Your task to perform on an android device: turn off sleep mode Image 0: 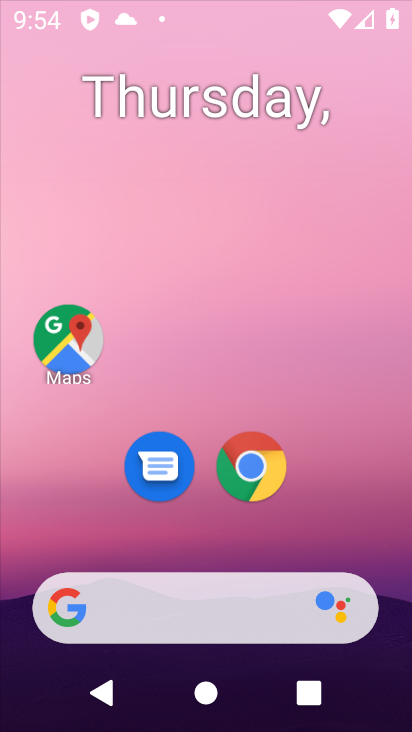
Step 0: drag from (238, 493) to (271, 115)
Your task to perform on an android device: turn off sleep mode Image 1: 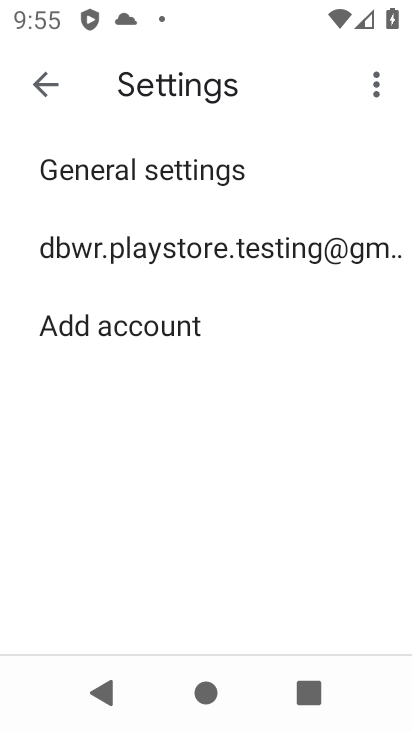
Step 1: press home button
Your task to perform on an android device: turn off sleep mode Image 2: 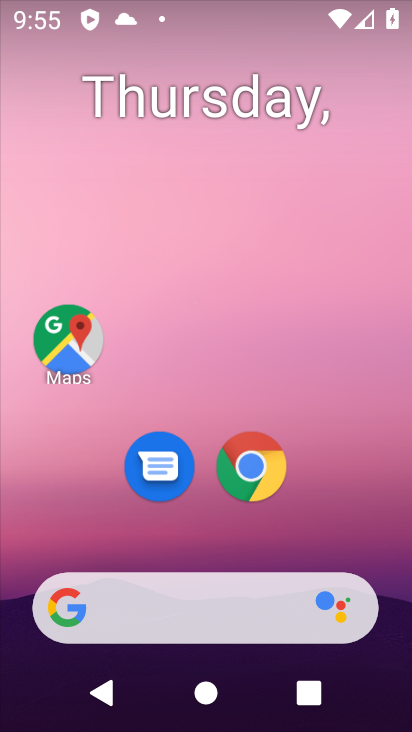
Step 2: drag from (201, 559) to (244, 126)
Your task to perform on an android device: turn off sleep mode Image 3: 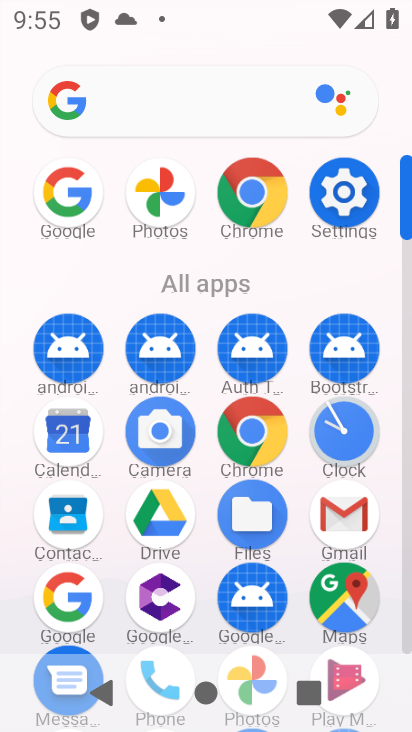
Step 3: click (333, 219)
Your task to perform on an android device: turn off sleep mode Image 4: 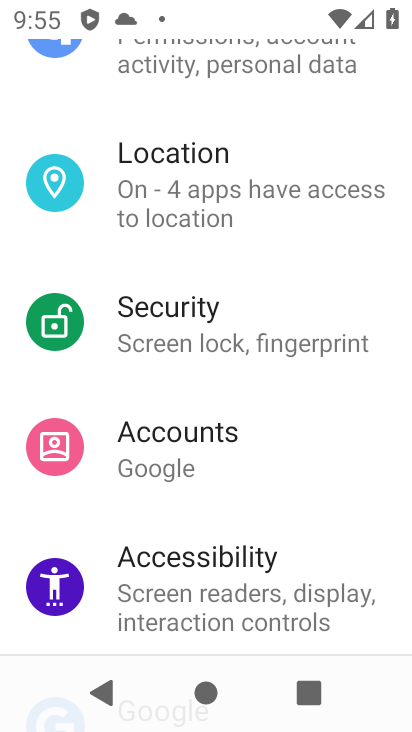
Step 4: drag from (333, 221) to (331, 581)
Your task to perform on an android device: turn off sleep mode Image 5: 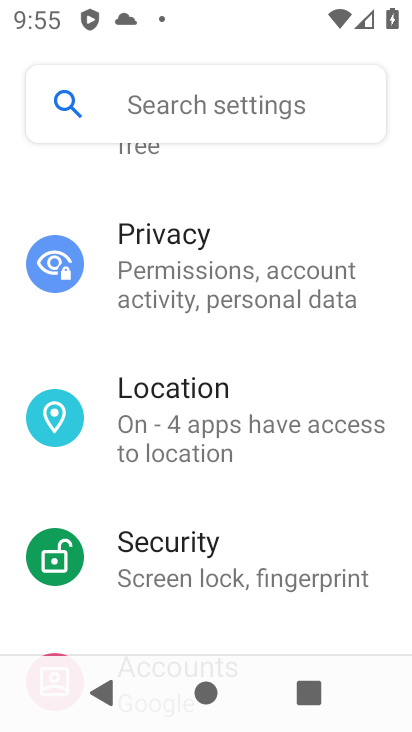
Step 5: drag from (309, 204) to (294, 595)
Your task to perform on an android device: turn off sleep mode Image 6: 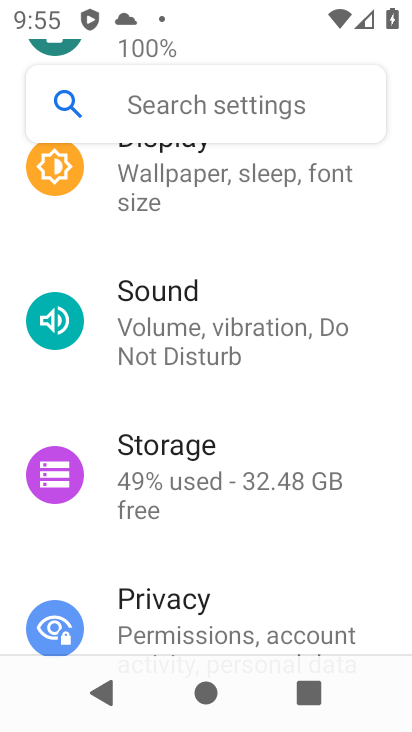
Step 6: click (215, 169)
Your task to perform on an android device: turn off sleep mode Image 7: 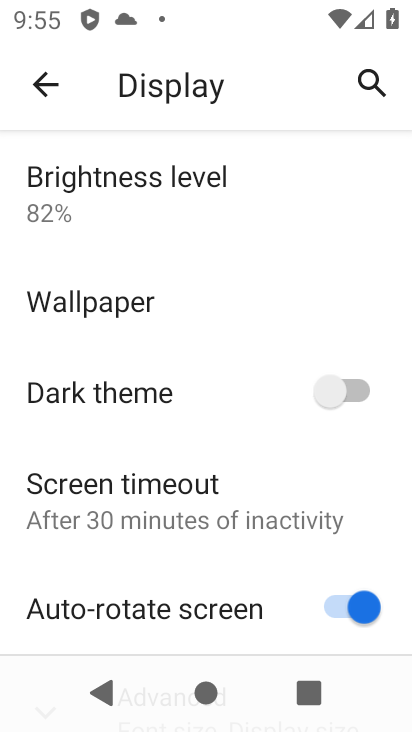
Step 7: task complete